Your task to perform on an android device: toggle show notifications on the lock screen Image 0: 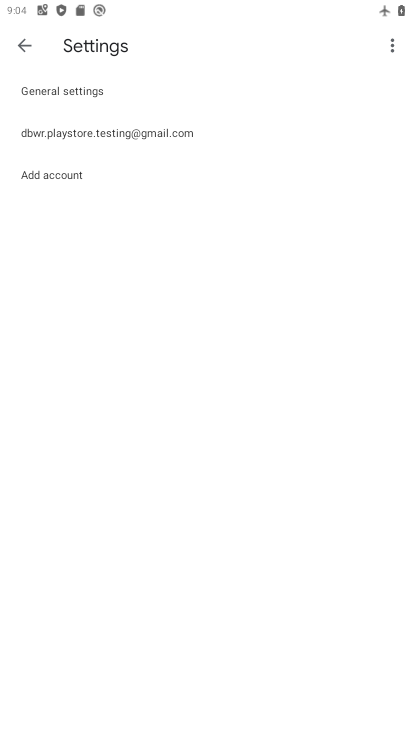
Step 0: press home button
Your task to perform on an android device: toggle show notifications on the lock screen Image 1: 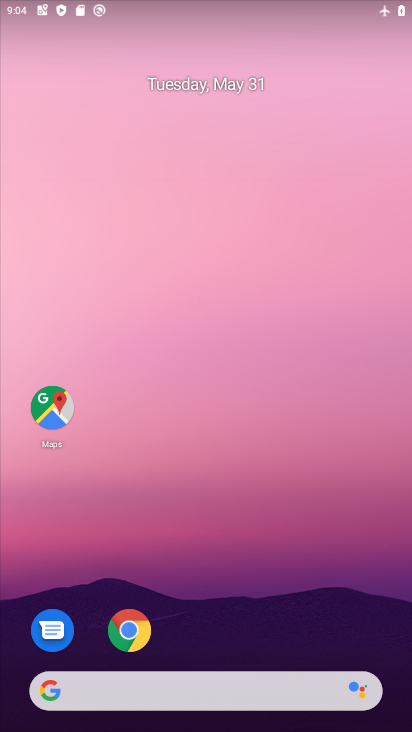
Step 1: drag from (217, 658) to (281, 217)
Your task to perform on an android device: toggle show notifications on the lock screen Image 2: 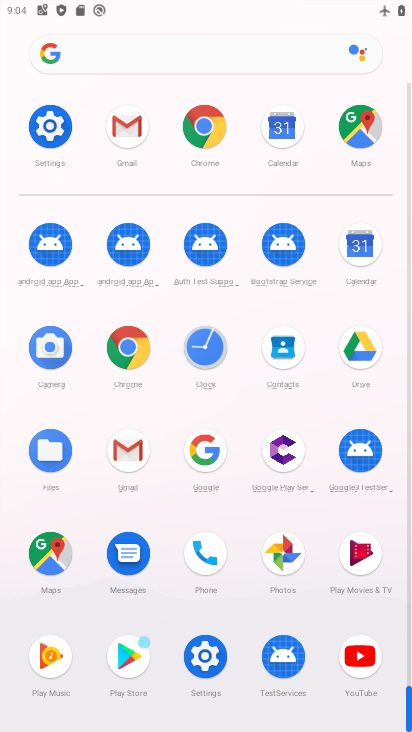
Step 2: click (36, 121)
Your task to perform on an android device: toggle show notifications on the lock screen Image 3: 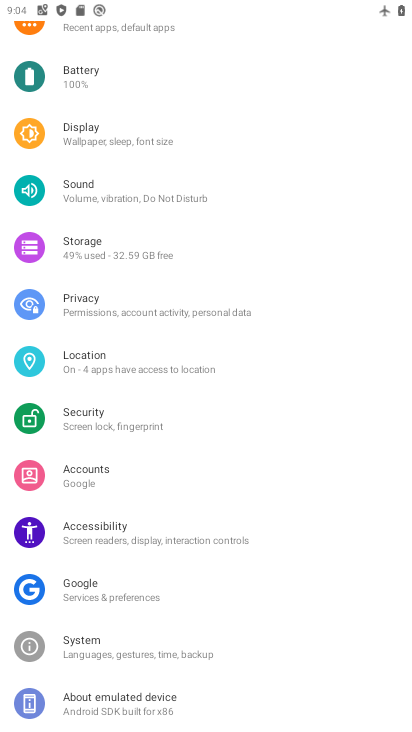
Step 3: drag from (208, 129) to (220, 653)
Your task to perform on an android device: toggle show notifications on the lock screen Image 4: 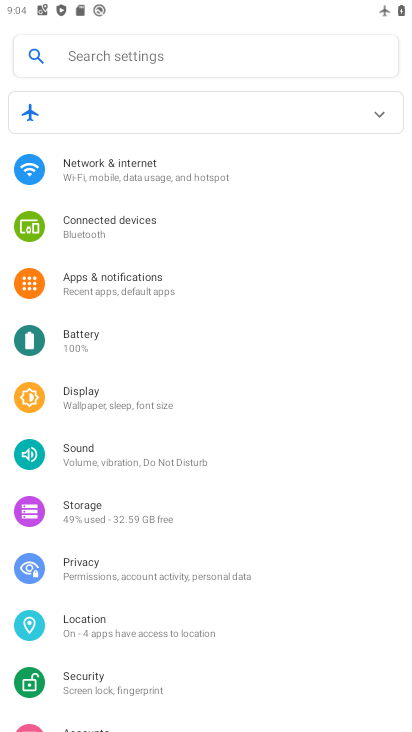
Step 4: click (159, 281)
Your task to perform on an android device: toggle show notifications on the lock screen Image 5: 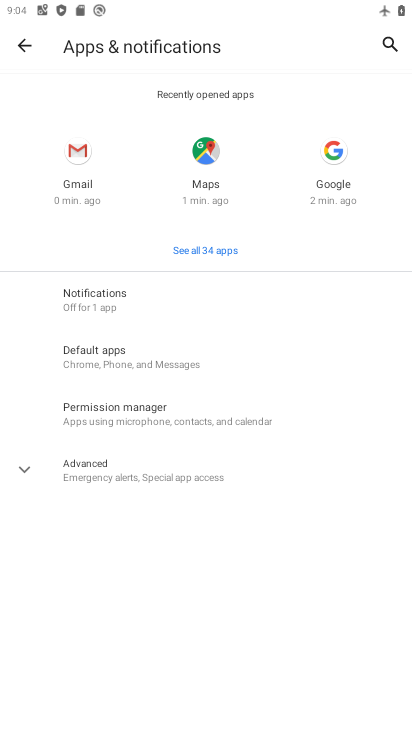
Step 5: click (141, 307)
Your task to perform on an android device: toggle show notifications on the lock screen Image 6: 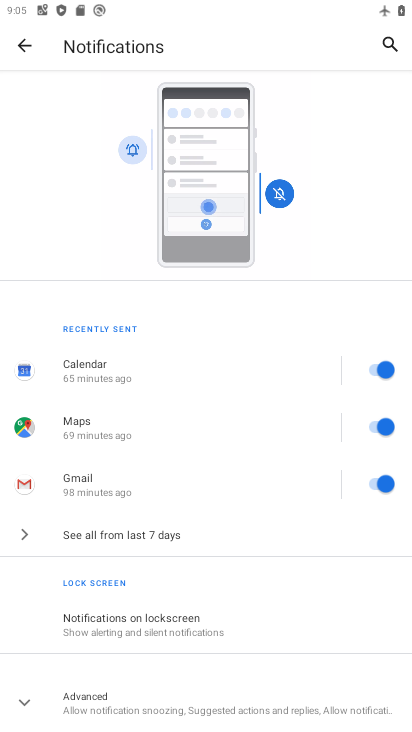
Step 6: click (177, 622)
Your task to perform on an android device: toggle show notifications on the lock screen Image 7: 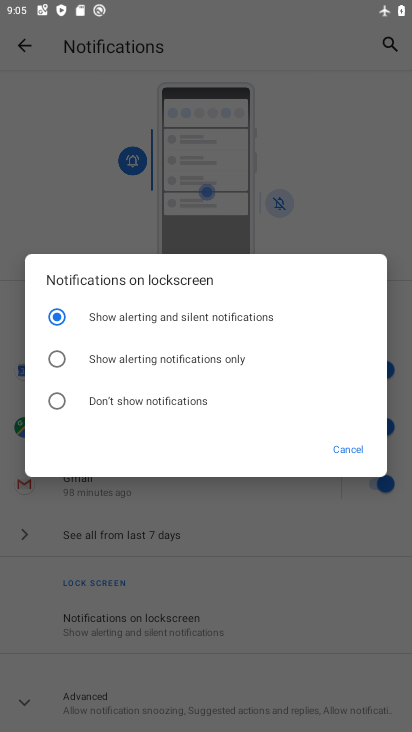
Step 7: click (147, 398)
Your task to perform on an android device: toggle show notifications on the lock screen Image 8: 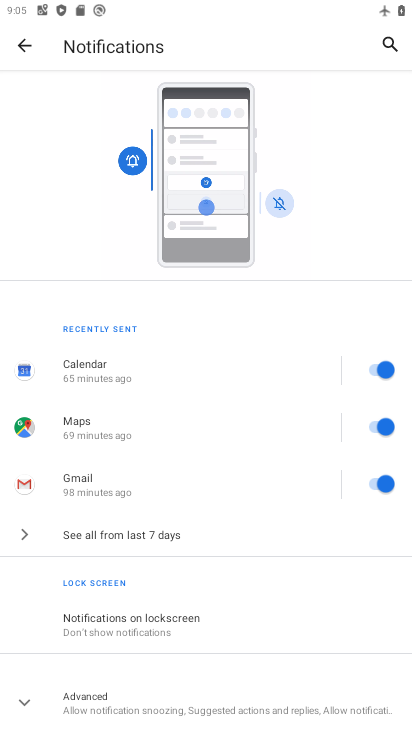
Step 8: task complete